Your task to perform on an android device: change the upload size in google photos Image 0: 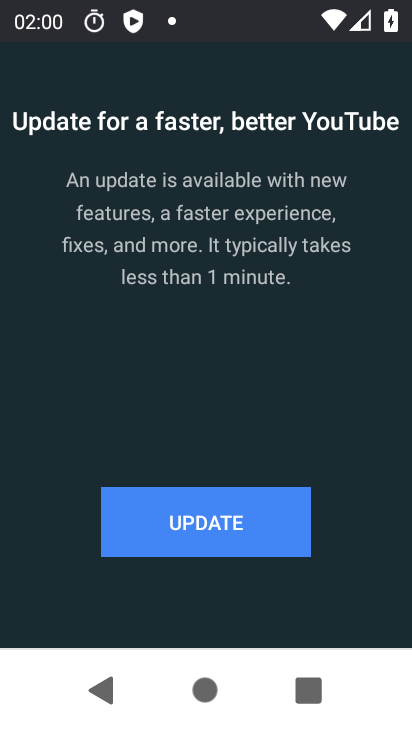
Step 0: press home button
Your task to perform on an android device: change the upload size in google photos Image 1: 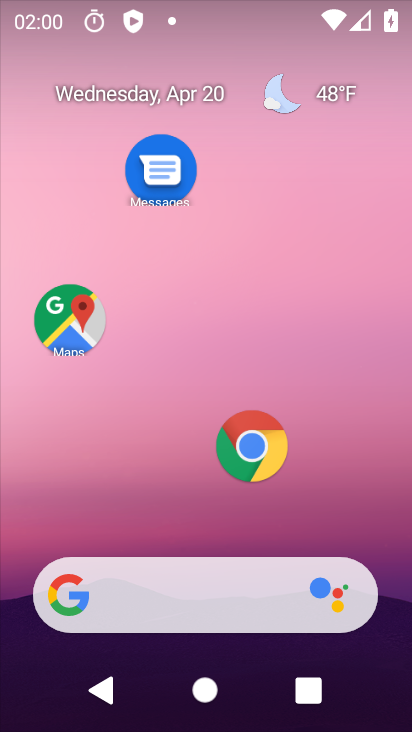
Step 1: drag from (209, 530) to (215, 105)
Your task to perform on an android device: change the upload size in google photos Image 2: 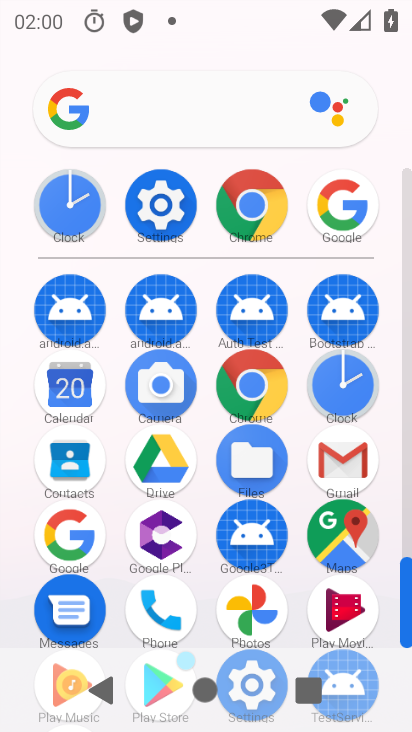
Step 2: click (253, 607)
Your task to perform on an android device: change the upload size in google photos Image 3: 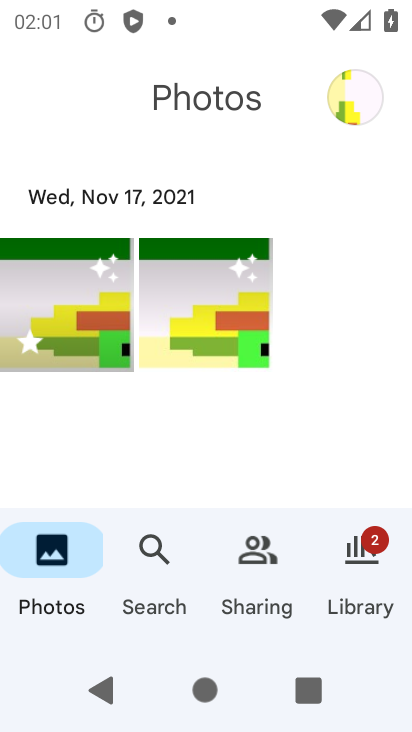
Step 3: click (348, 94)
Your task to perform on an android device: change the upload size in google photos Image 4: 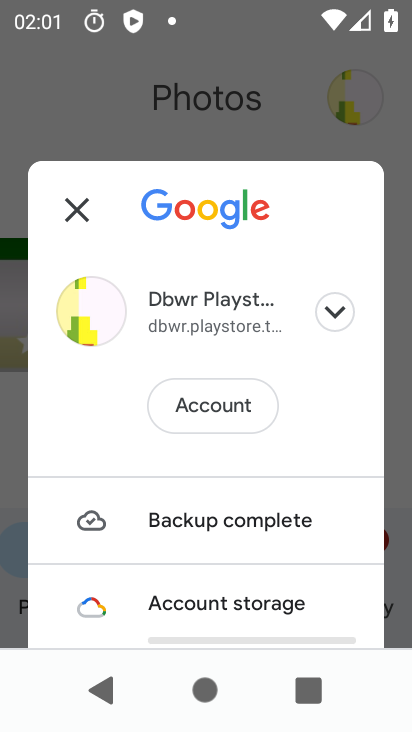
Step 4: drag from (185, 561) to (236, 207)
Your task to perform on an android device: change the upload size in google photos Image 5: 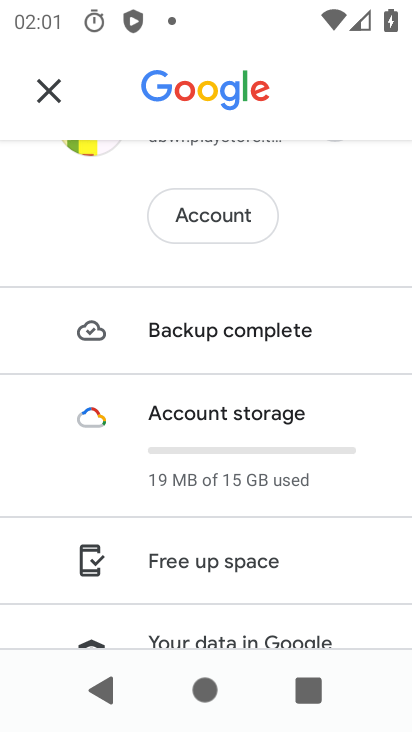
Step 5: click (211, 343)
Your task to perform on an android device: change the upload size in google photos Image 6: 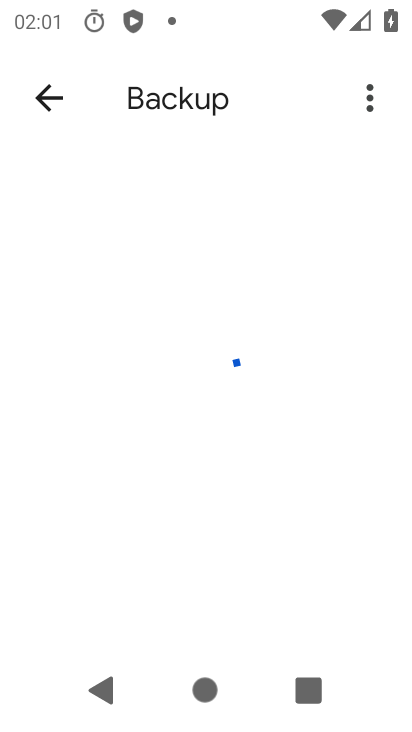
Step 6: click (376, 88)
Your task to perform on an android device: change the upload size in google photos Image 7: 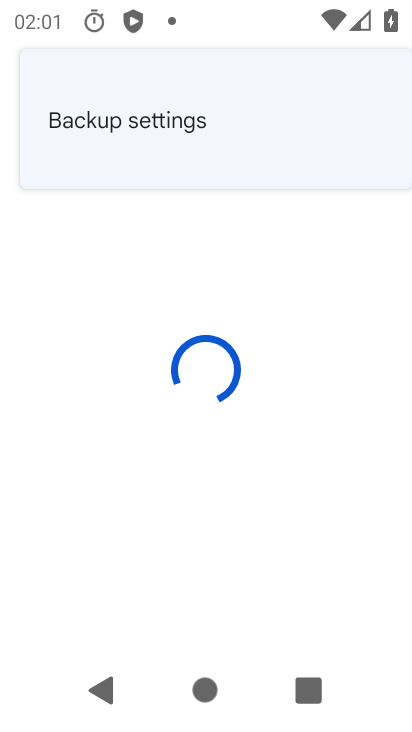
Step 7: click (197, 130)
Your task to perform on an android device: change the upload size in google photos Image 8: 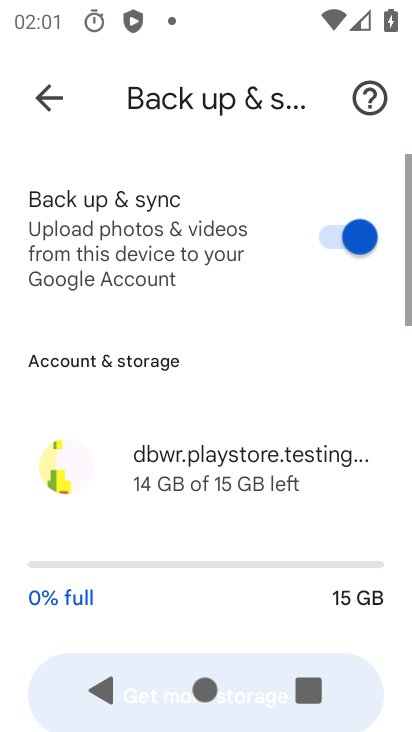
Step 8: drag from (203, 520) to (201, 140)
Your task to perform on an android device: change the upload size in google photos Image 9: 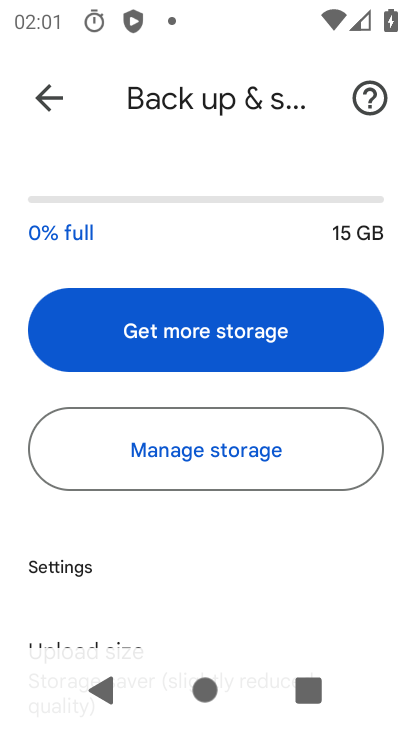
Step 9: drag from (173, 580) to (176, 279)
Your task to perform on an android device: change the upload size in google photos Image 10: 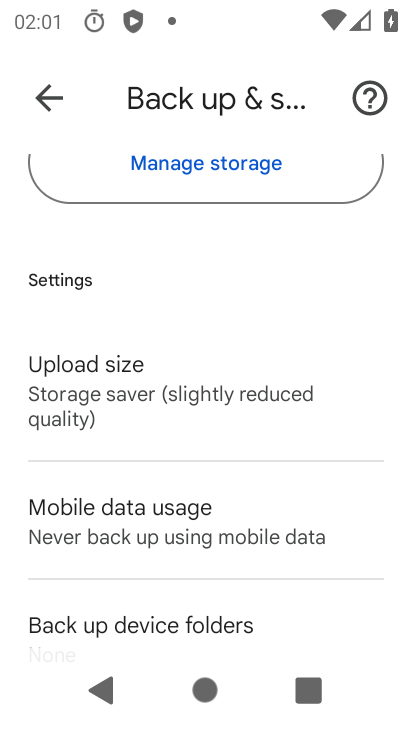
Step 10: click (154, 372)
Your task to perform on an android device: change the upload size in google photos Image 11: 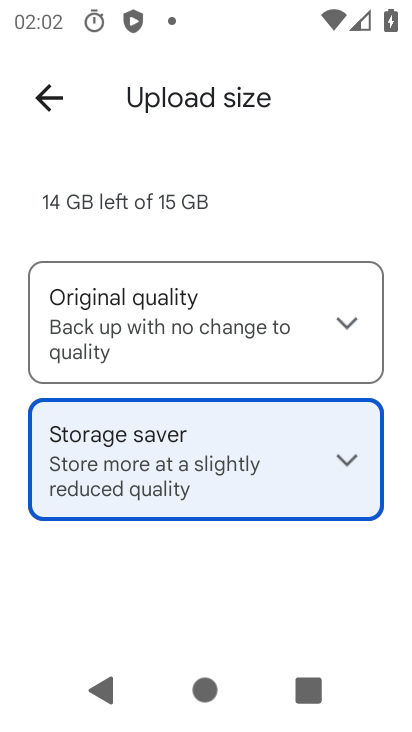
Step 11: click (163, 331)
Your task to perform on an android device: change the upload size in google photos Image 12: 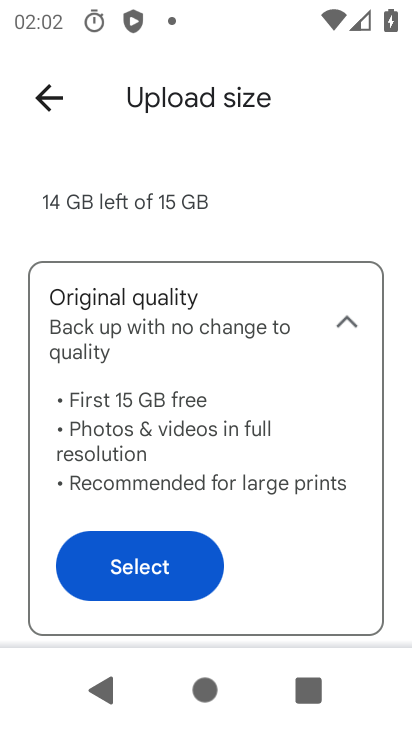
Step 12: click (160, 555)
Your task to perform on an android device: change the upload size in google photos Image 13: 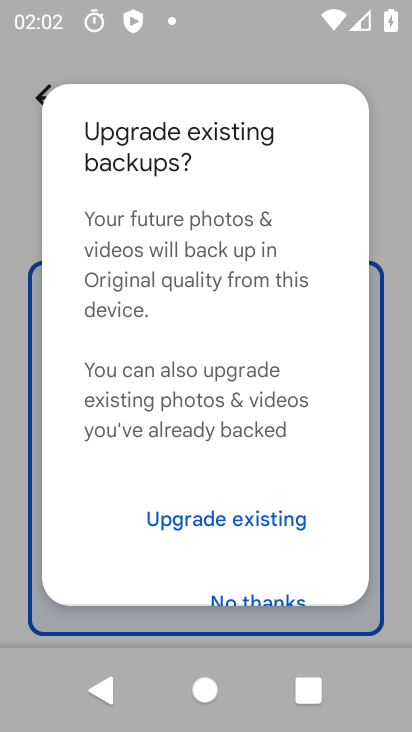
Step 13: click (259, 585)
Your task to perform on an android device: change the upload size in google photos Image 14: 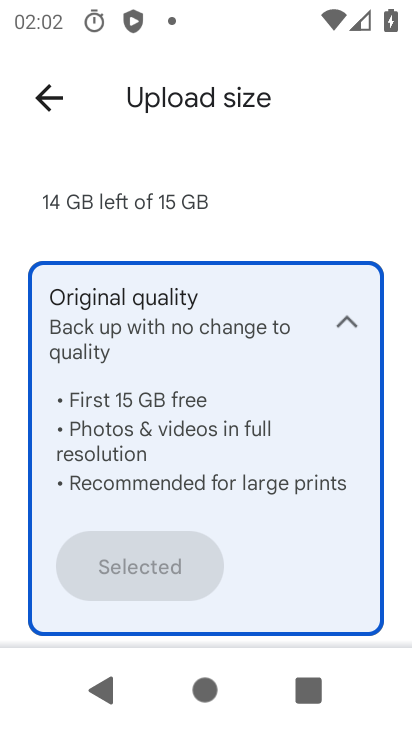
Step 14: task complete